Your task to perform on an android device: Go to sound settings Image 0: 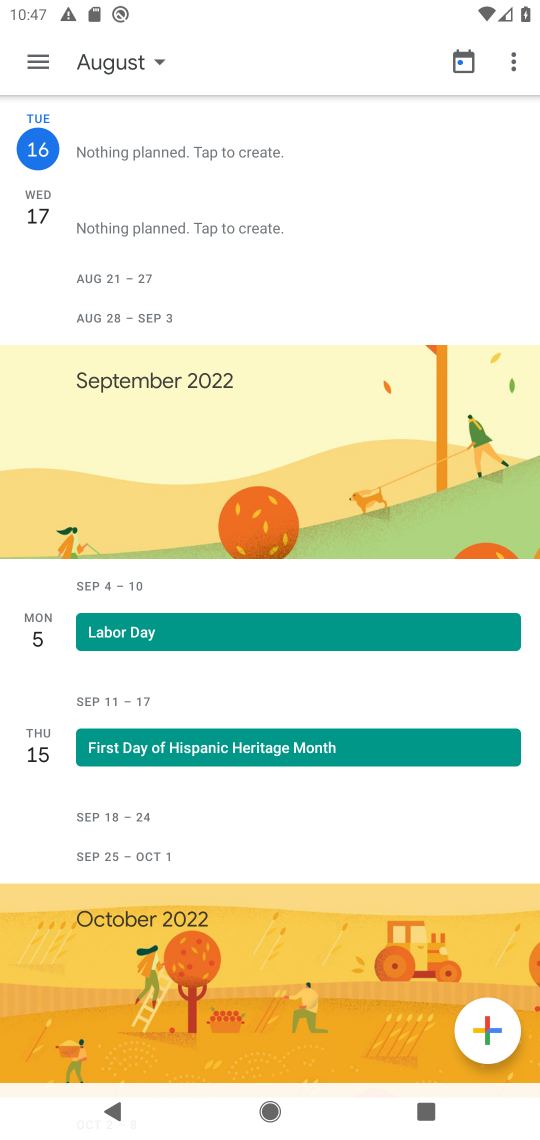
Step 0: press home button
Your task to perform on an android device: Go to sound settings Image 1: 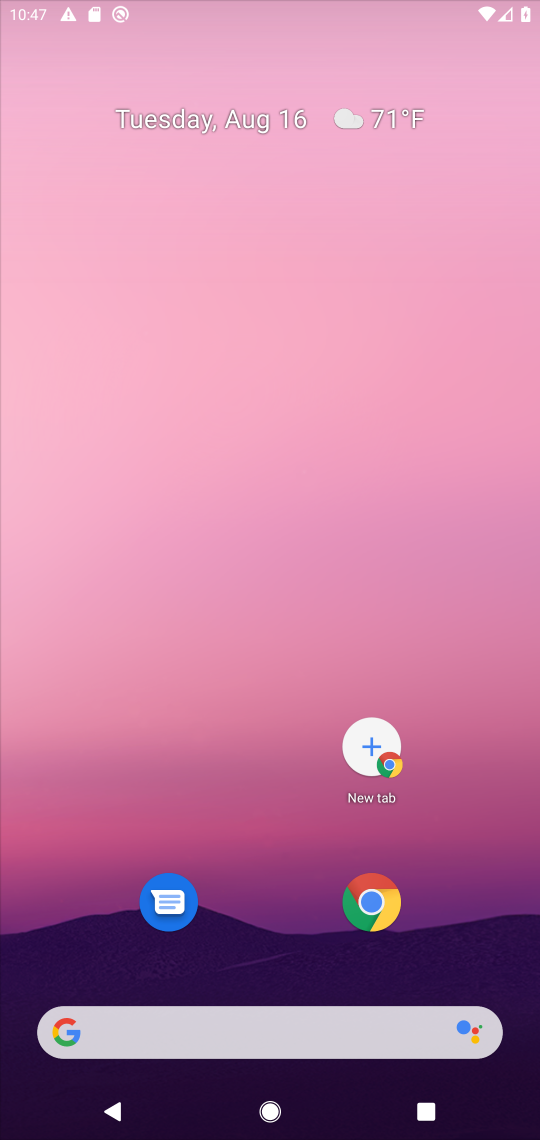
Step 1: drag from (176, 900) to (158, 308)
Your task to perform on an android device: Go to sound settings Image 2: 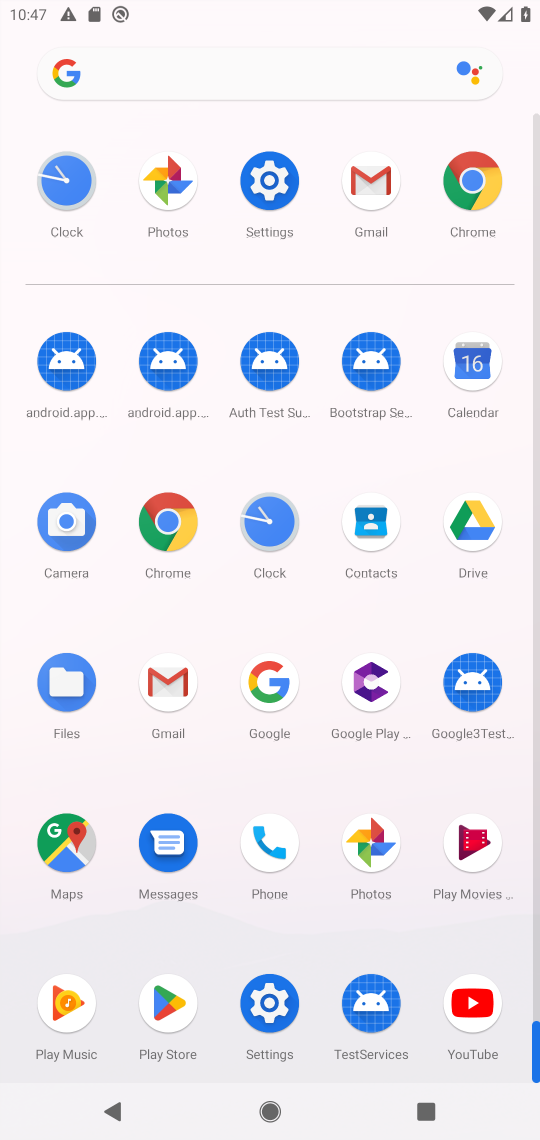
Step 2: click (260, 190)
Your task to perform on an android device: Go to sound settings Image 3: 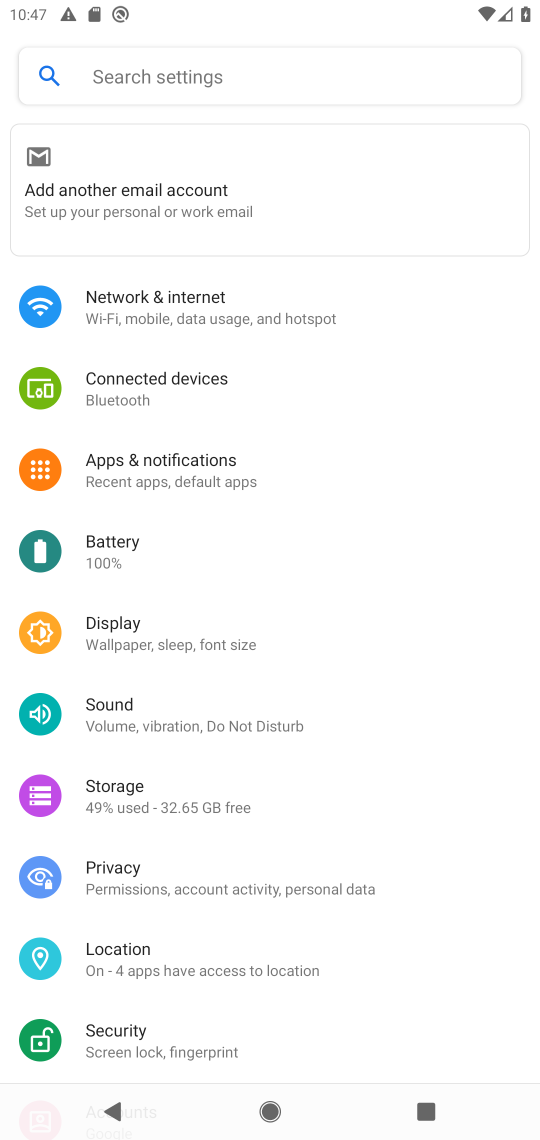
Step 3: click (155, 709)
Your task to perform on an android device: Go to sound settings Image 4: 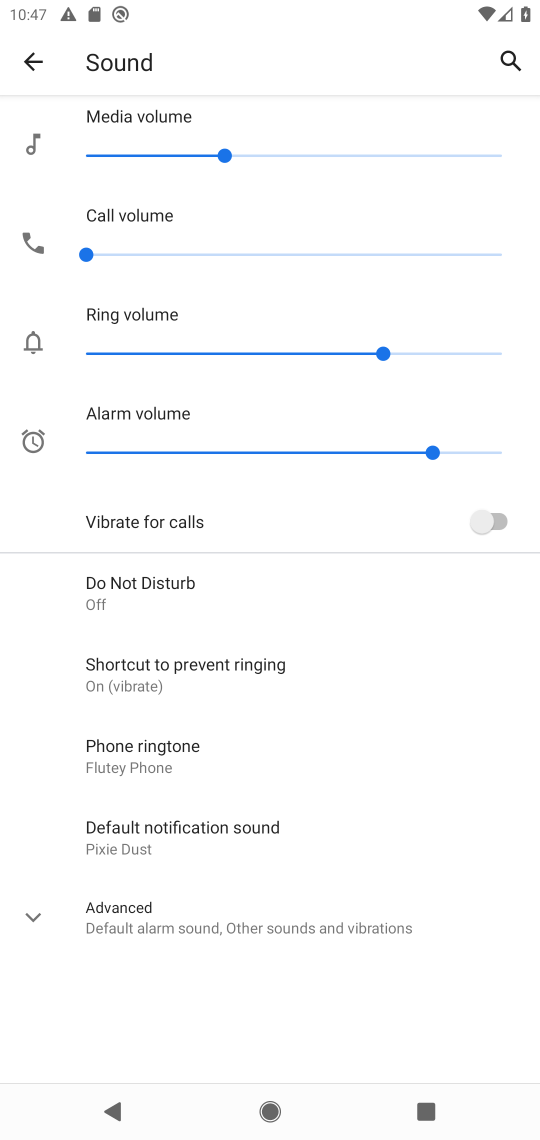
Step 4: click (131, 921)
Your task to perform on an android device: Go to sound settings Image 5: 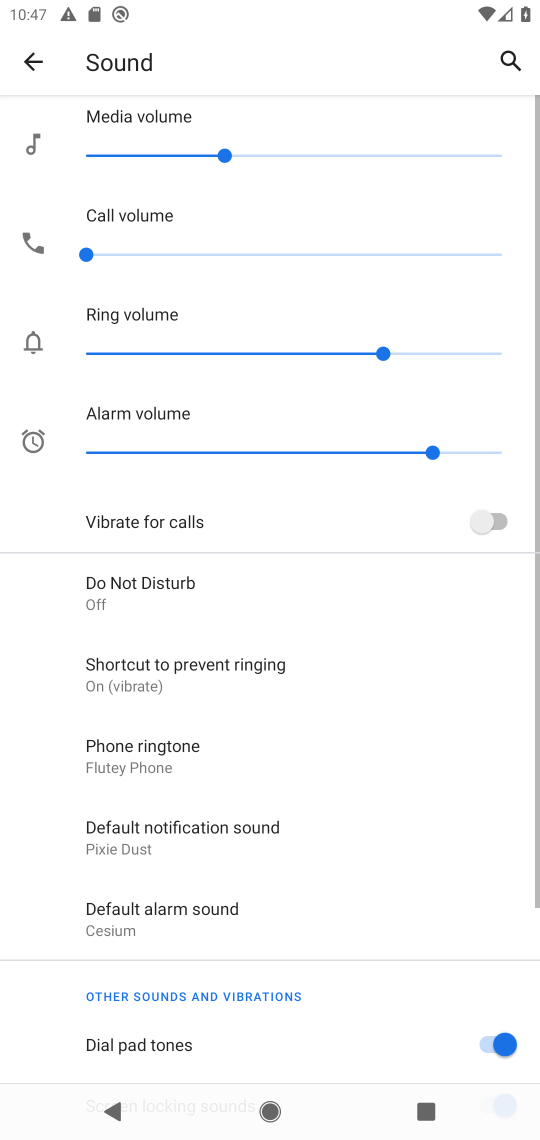
Step 5: task complete